Your task to perform on an android device: delete location history Image 0: 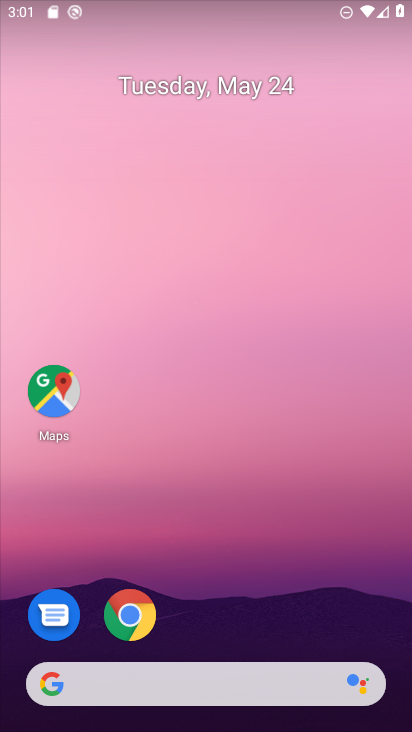
Step 0: click (328, 95)
Your task to perform on an android device: delete location history Image 1: 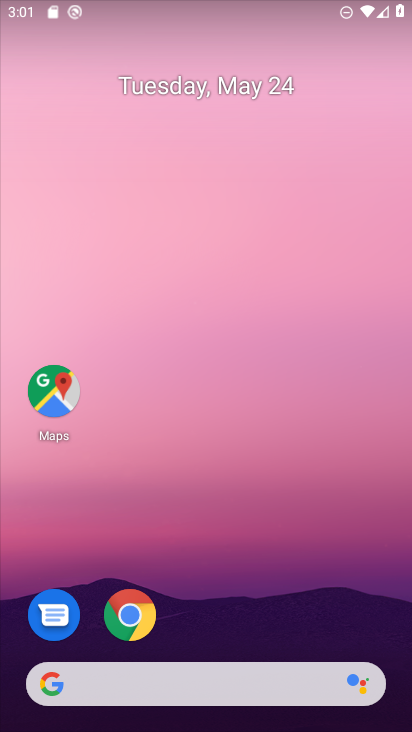
Step 1: drag from (223, 636) to (304, 55)
Your task to perform on an android device: delete location history Image 2: 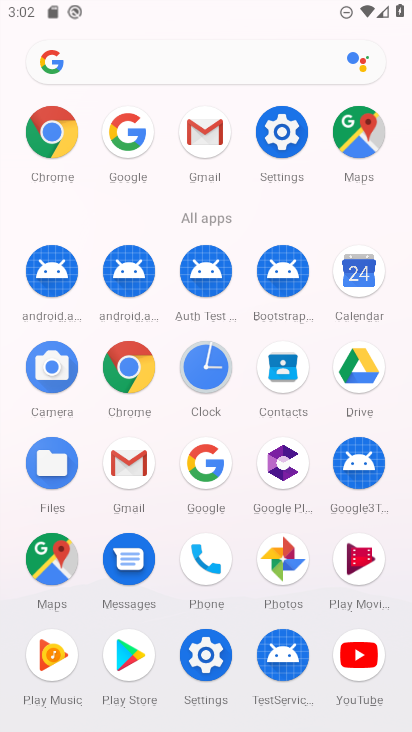
Step 2: click (277, 145)
Your task to perform on an android device: delete location history Image 3: 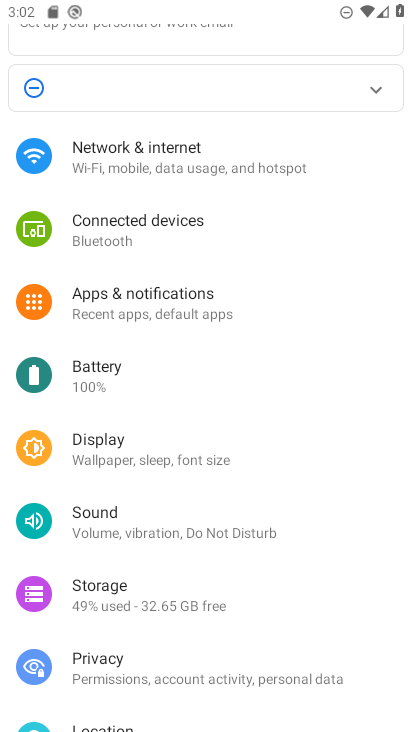
Step 3: drag from (229, 413) to (332, 125)
Your task to perform on an android device: delete location history Image 4: 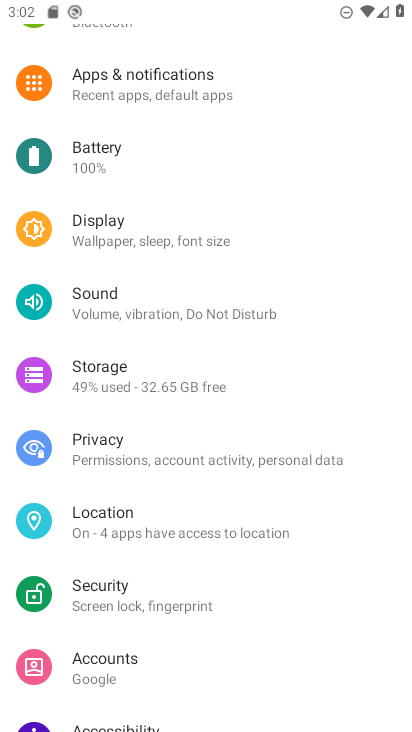
Step 4: drag from (157, 529) to (226, 228)
Your task to perform on an android device: delete location history Image 5: 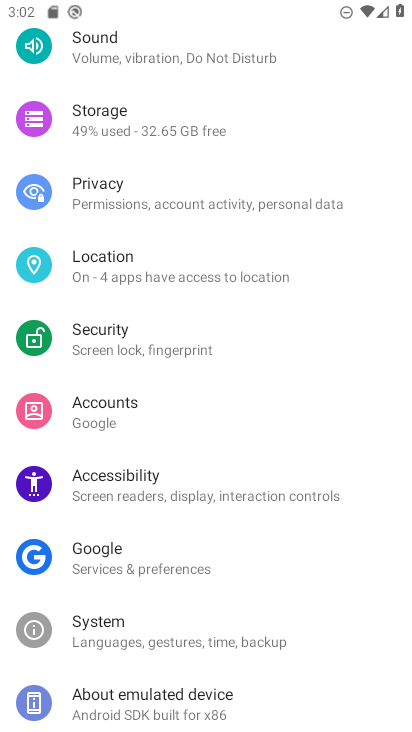
Step 5: click (217, 270)
Your task to perform on an android device: delete location history Image 6: 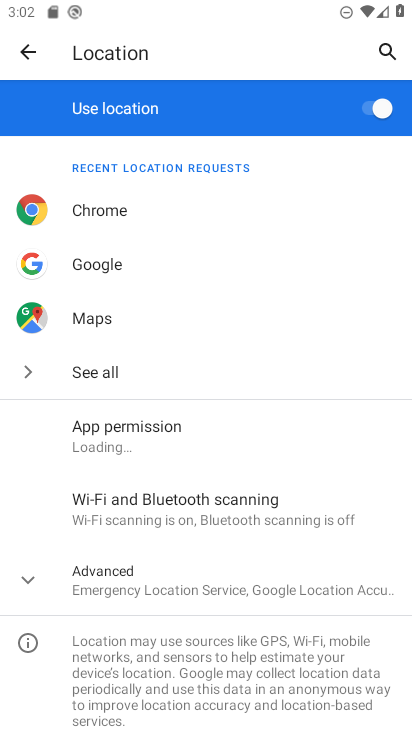
Step 6: drag from (187, 545) to (233, 304)
Your task to perform on an android device: delete location history Image 7: 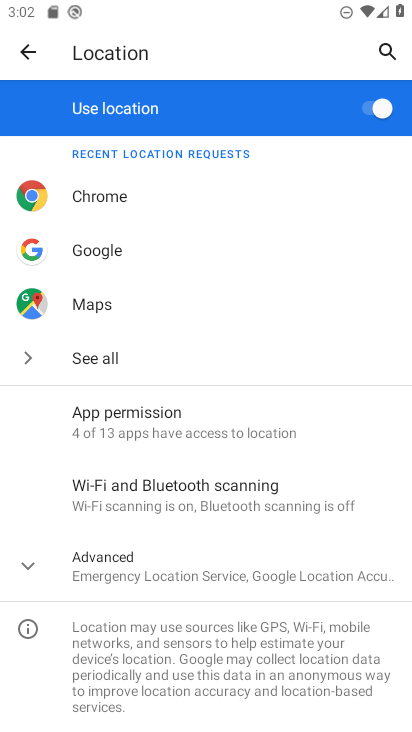
Step 7: click (203, 568)
Your task to perform on an android device: delete location history Image 8: 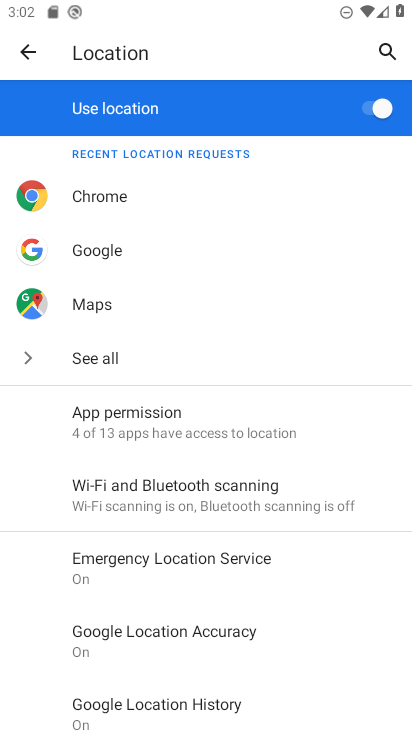
Step 8: drag from (250, 685) to (325, 450)
Your task to perform on an android device: delete location history Image 9: 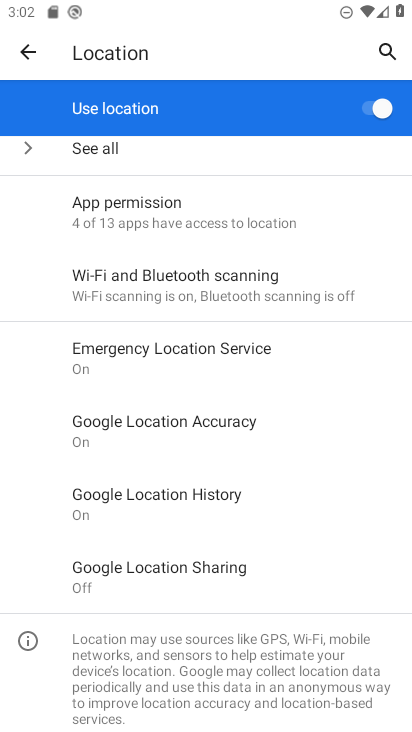
Step 9: click (221, 516)
Your task to perform on an android device: delete location history Image 10: 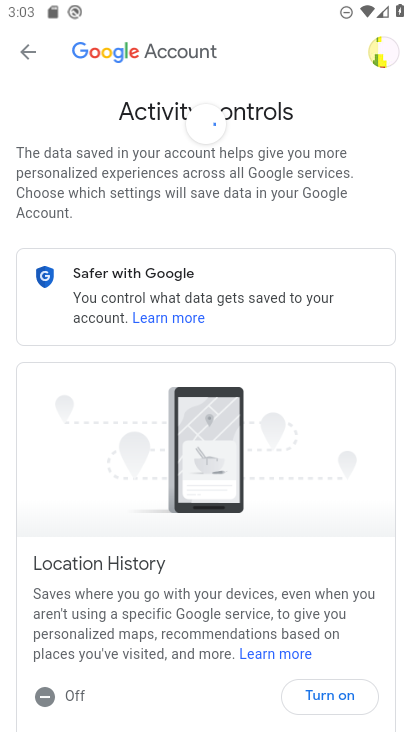
Step 10: drag from (221, 370) to (225, 204)
Your task to perform on an android device: delete location history Image 11: 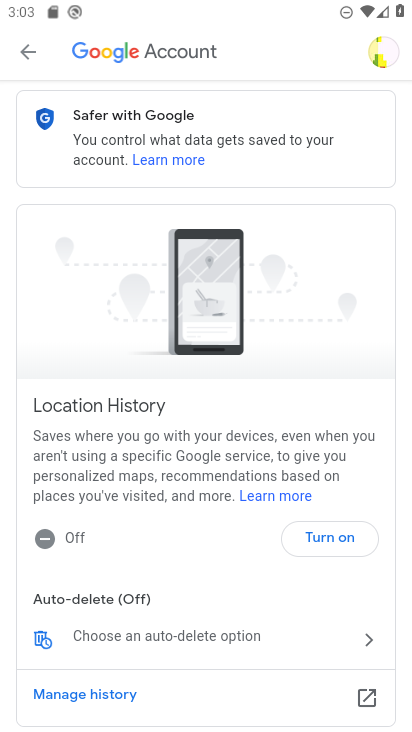
Step 11: drag from (245, 544) to (253, 349)
Your task to perform on an android device: delete location history Image 12: 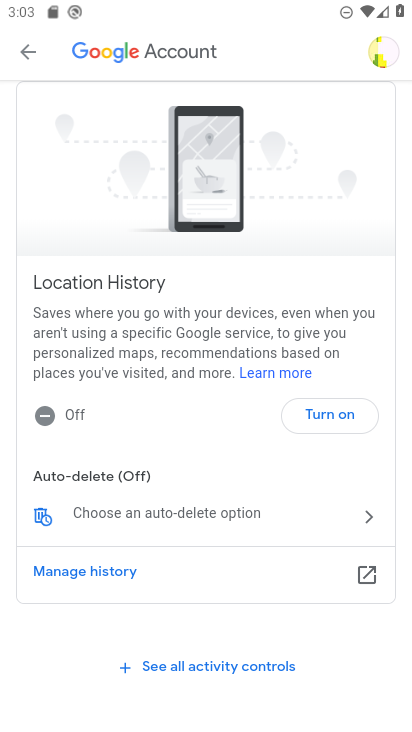
Step 12: click (330, 517)
Your task to perform on an android device: delete location history Image 13: 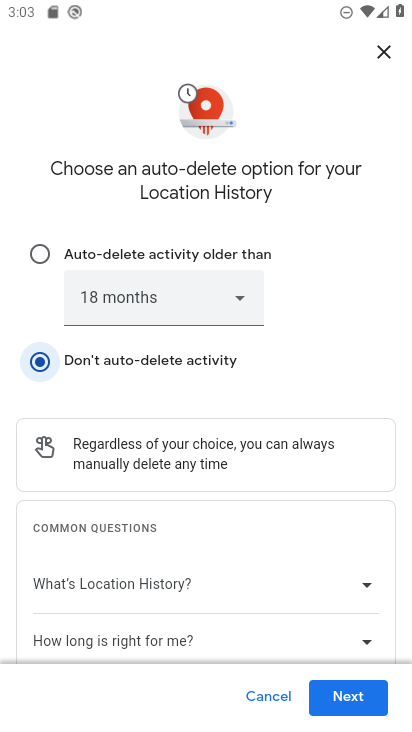
Step 13: drag from (266, 525) to (364, 236)
Your task to perform on an android device: delete location history Image 14: 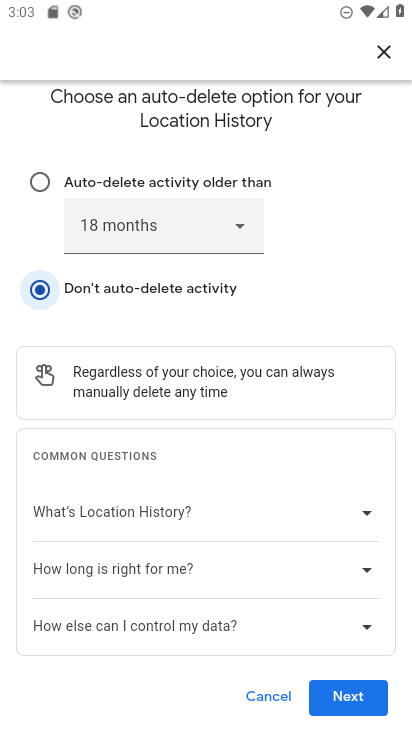
Step 14: drag from (200, 592) to (306, 269)
Your task to perform on an android device: delete location history Image 15: 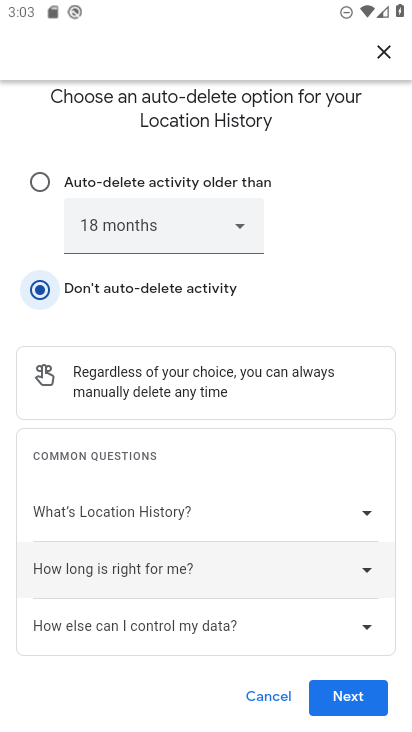
Step 15: click (369, 699)
Your task to perform on an android device: delete location history Image 16: 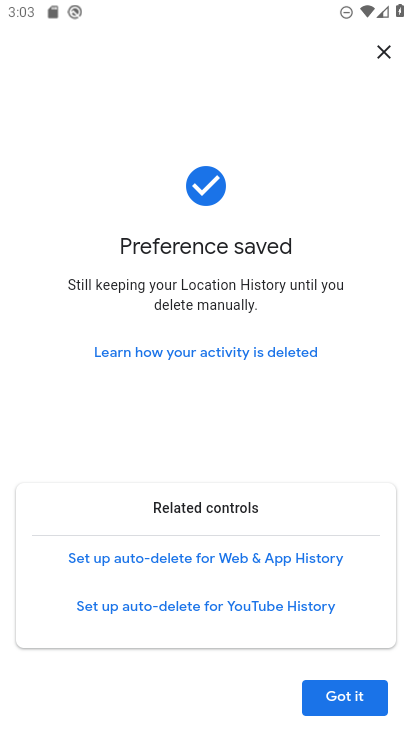
Step 16: click (366, 695)
Your task to perform on an android device: delete location history Image 17: 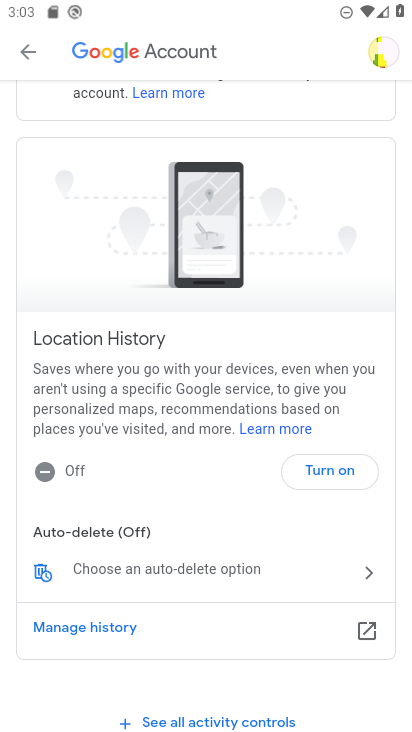
Step 17: task complete